Your task to perform on an android device: move a message to another label in the gmail app Image 0: 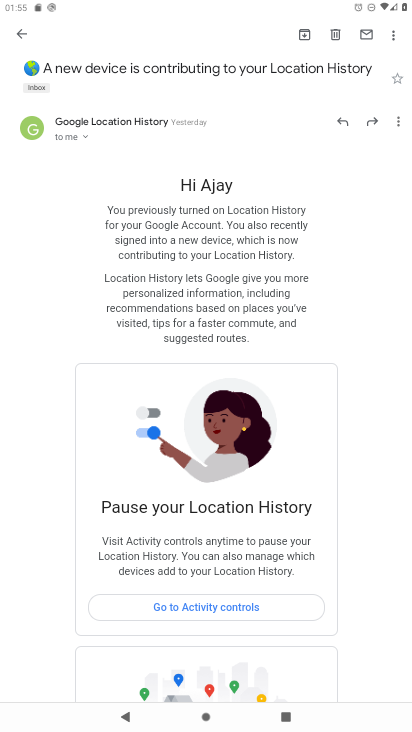
Step 0: press home button
Your task to perform on an android device: move a message to another label in the gmail app Image 1: 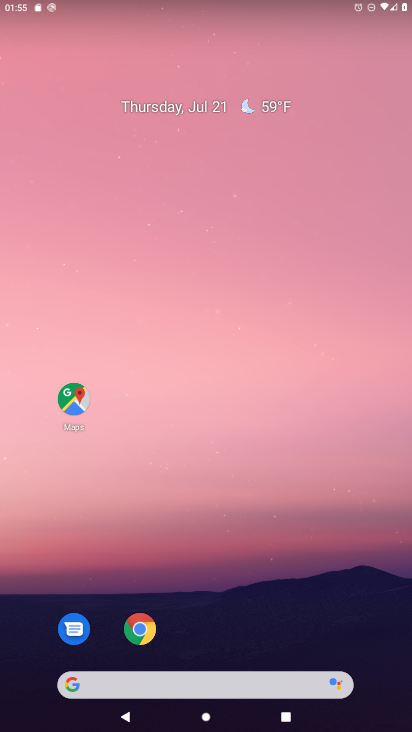
Step 1: drag from (391, 677) to (335, 98)
Your task to perform on an android device: move a message to another label in the gmail app Image 2: 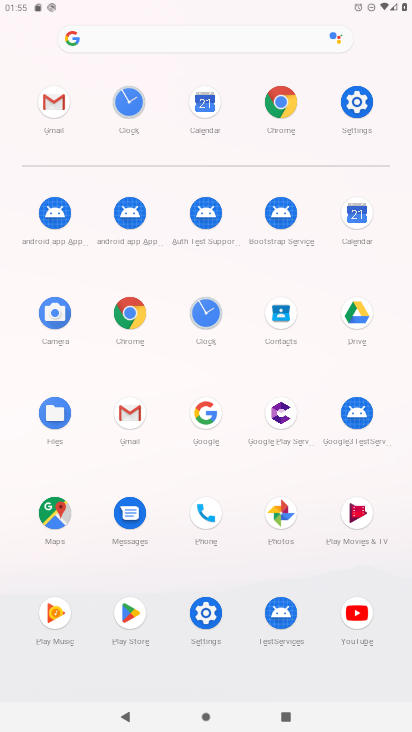
Step 2: click (128, 411)
Your task to perform on an android device: move a message to another label in the gmail app Image 3: 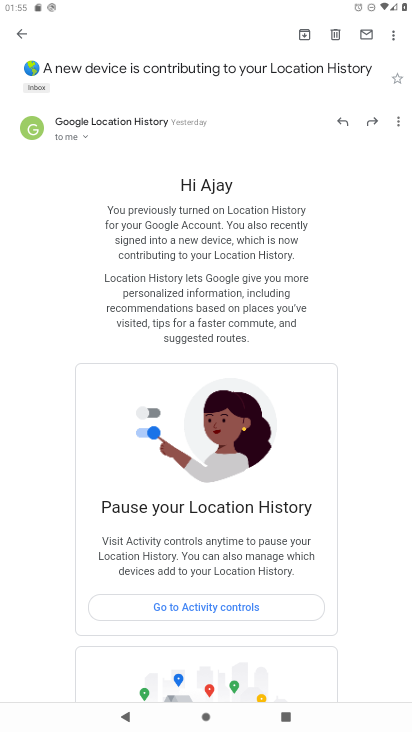
Step 3: click (393, 40)
Your task to perform on an android device: move a message to another label in the gmail app Image 4: 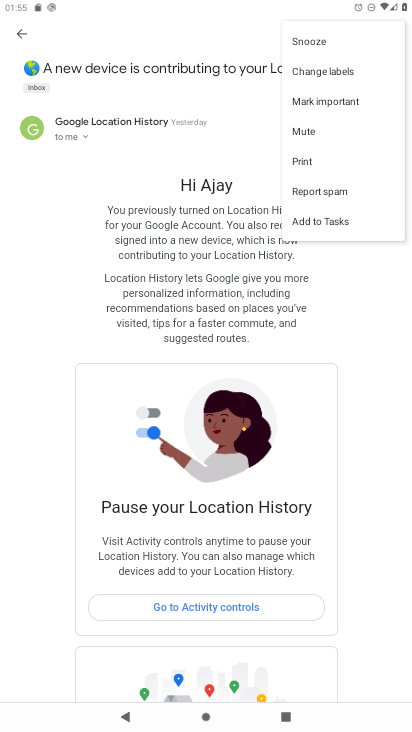
Step 4: click (318, 103)
Your task to perform on an android device: move a message to another label in the gmail app Image 5: 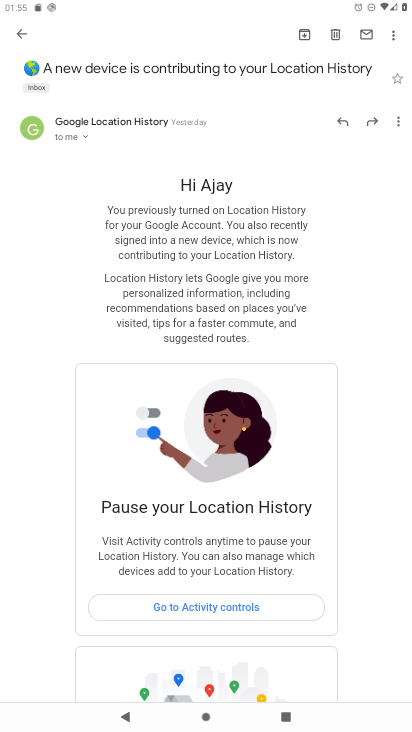
Step 5: task complete